Your task to perform on an android device: Open the web browser Image 0: 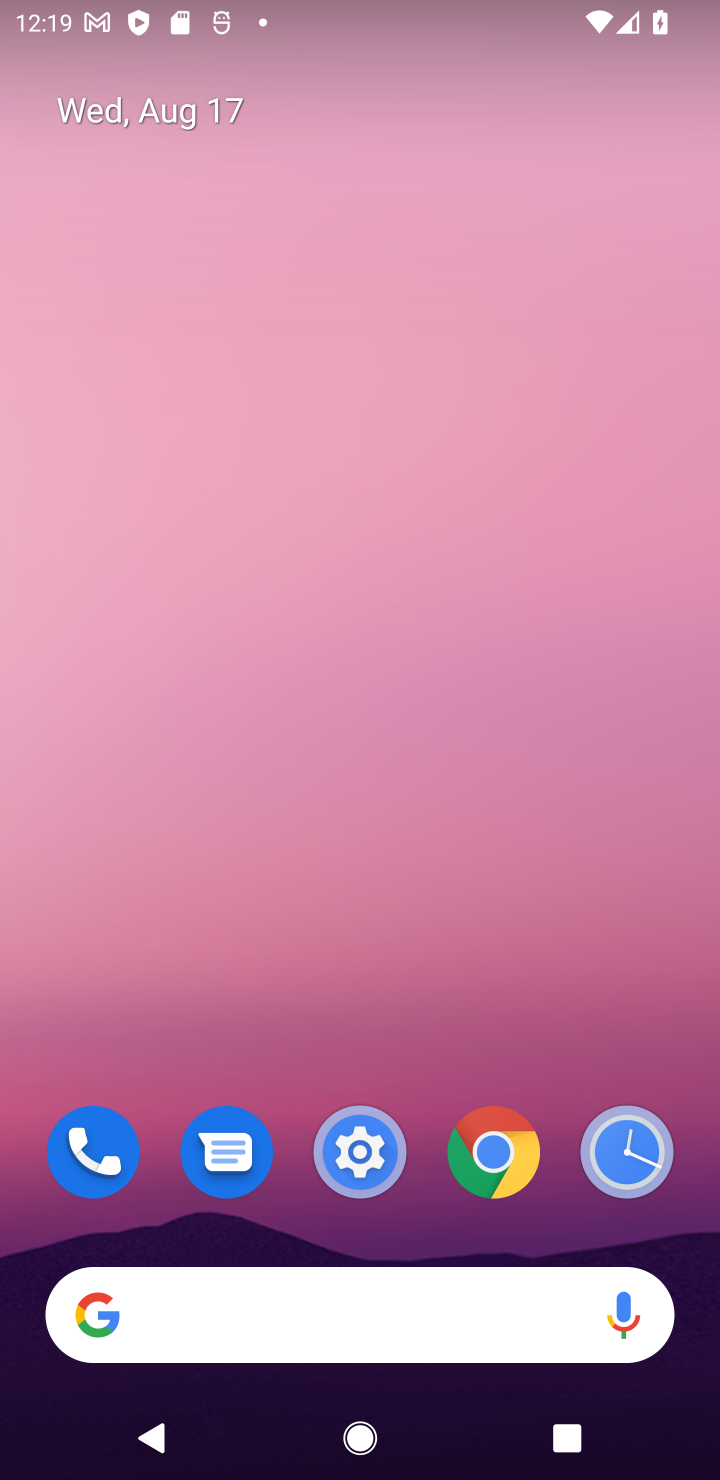
Step 0: drag from (583, 1182) to (9, 24)
Your task to perform on an android device: Open the web browser Image 1: 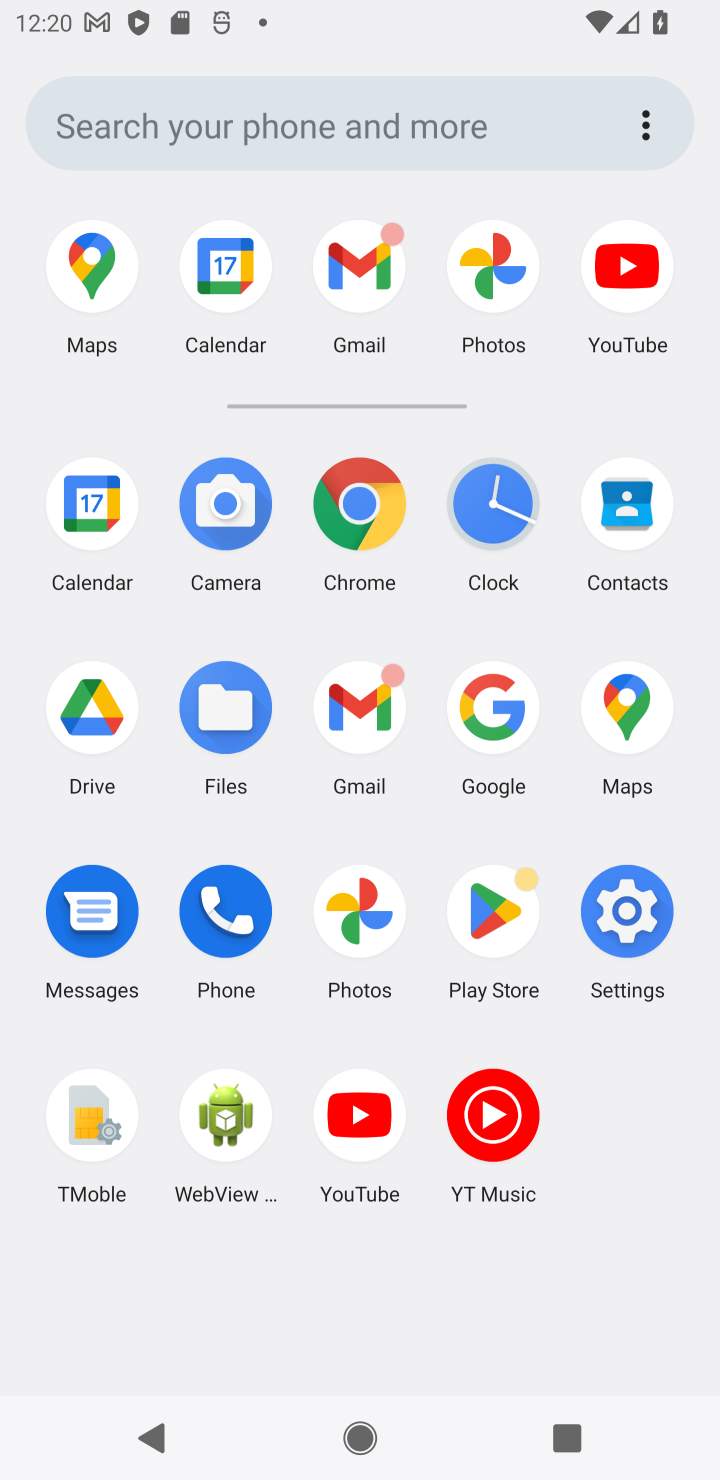
Step 1: click (505, 713)
Your task to perform on an android device: Open the web browser Image 2: 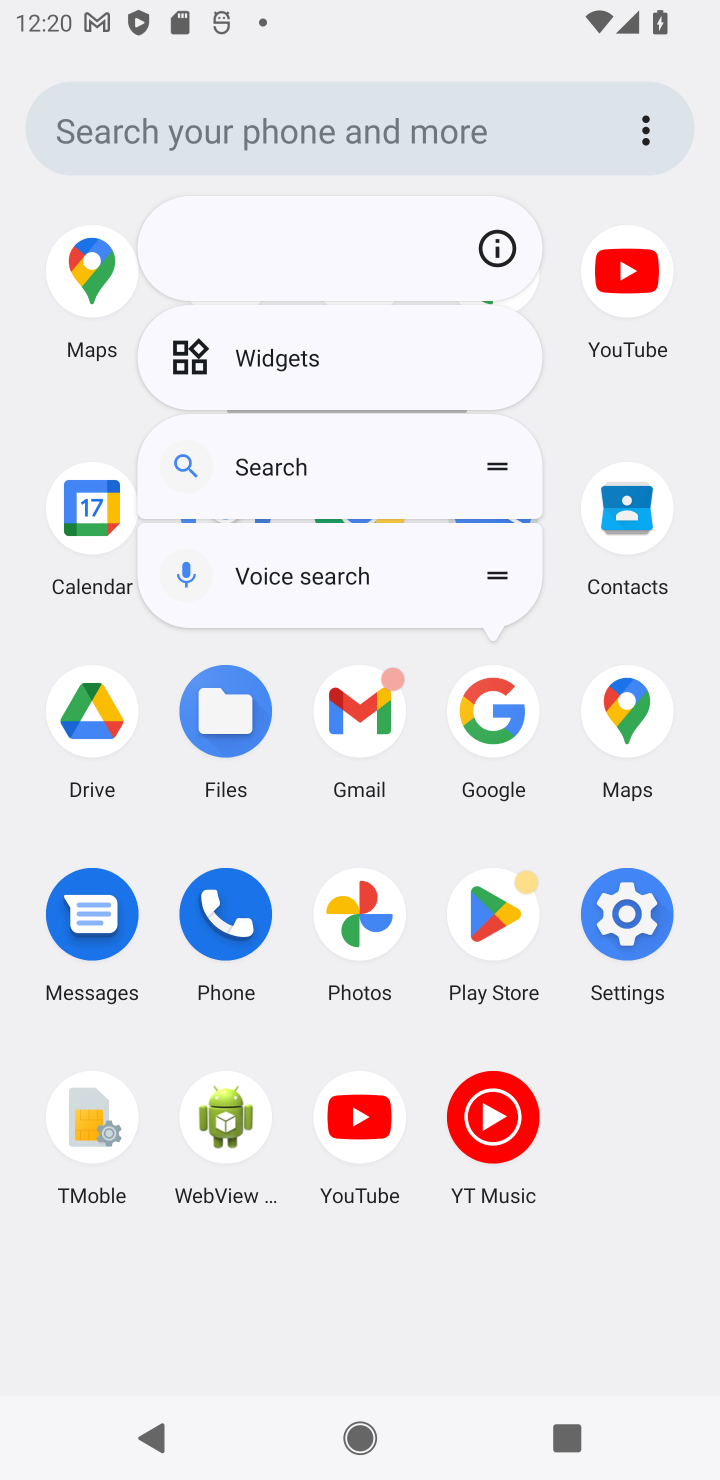
Step 2: click (505, 713)
Your task to perform on an android device: Open the web browser Image 3: 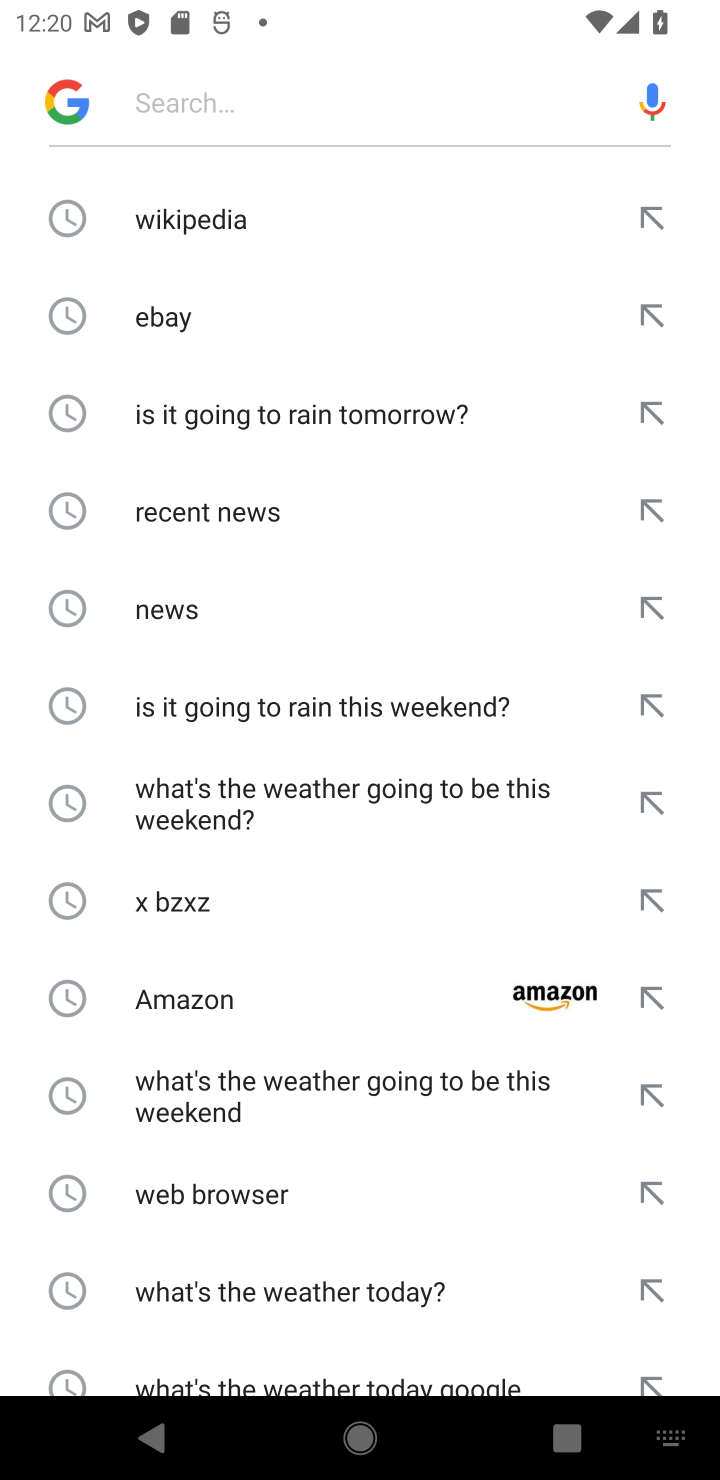
Step 3: click (237, 1214)
Your task to perform on an android device: Open the web browser Image 4: 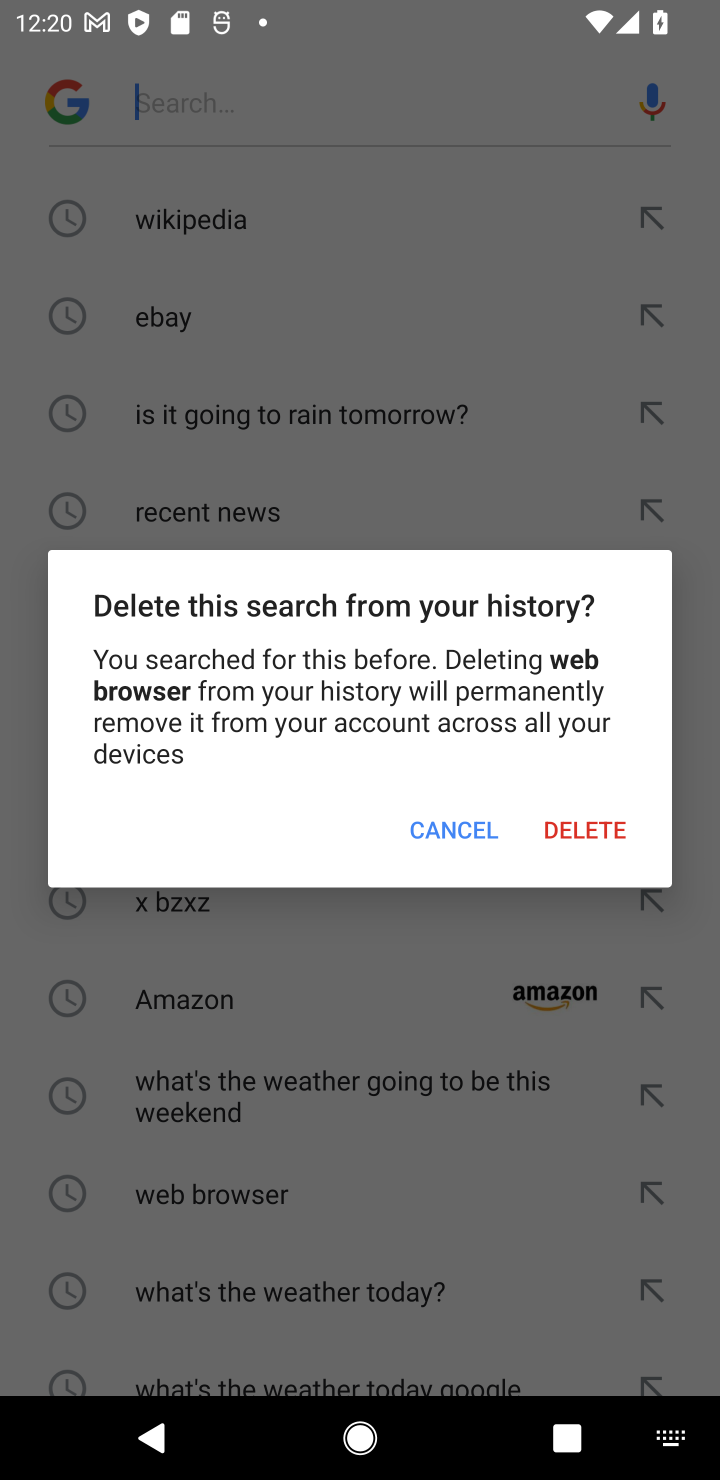
Step 4: click (436, 848)
Your task to perform on an android device: Open the web browser Image 5: 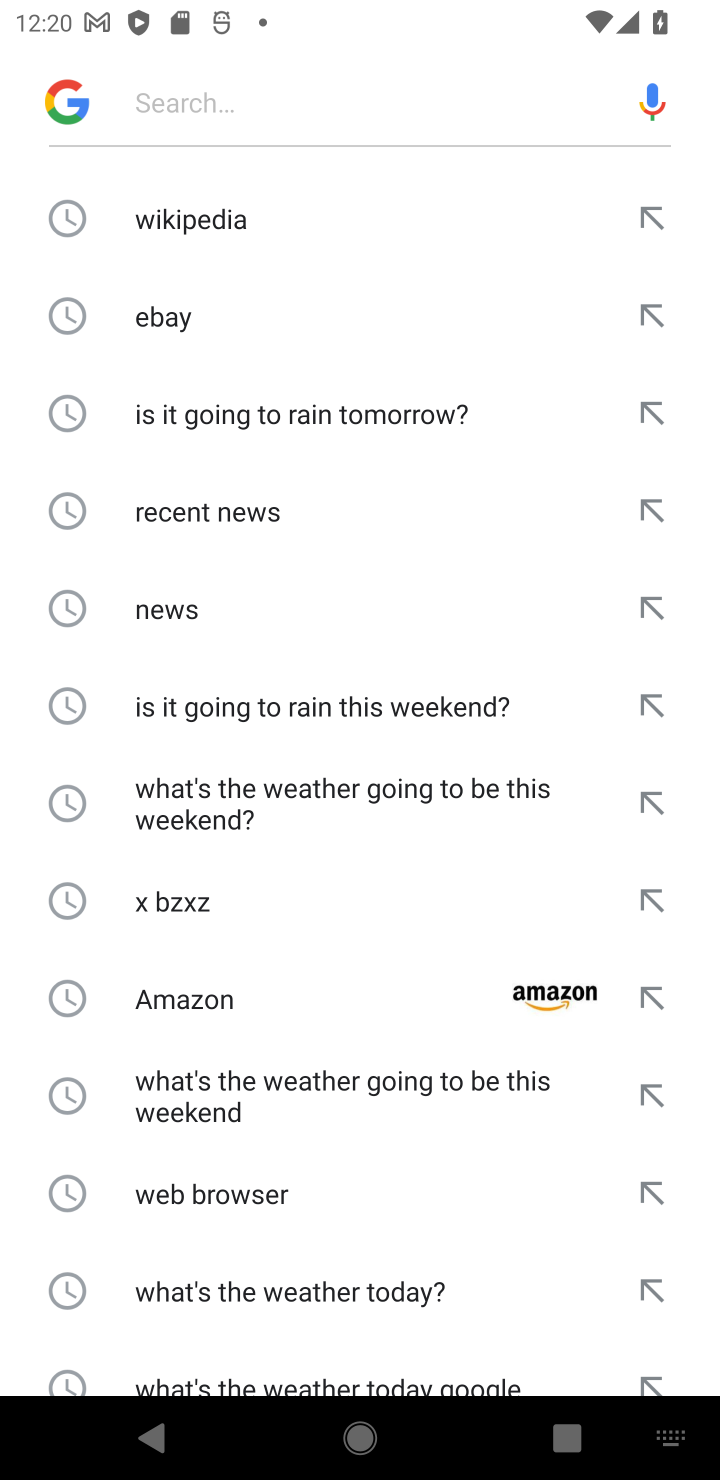
Step 5: click (164, 1189)
Your task to perform on an android device: Open the web browser Image 6: 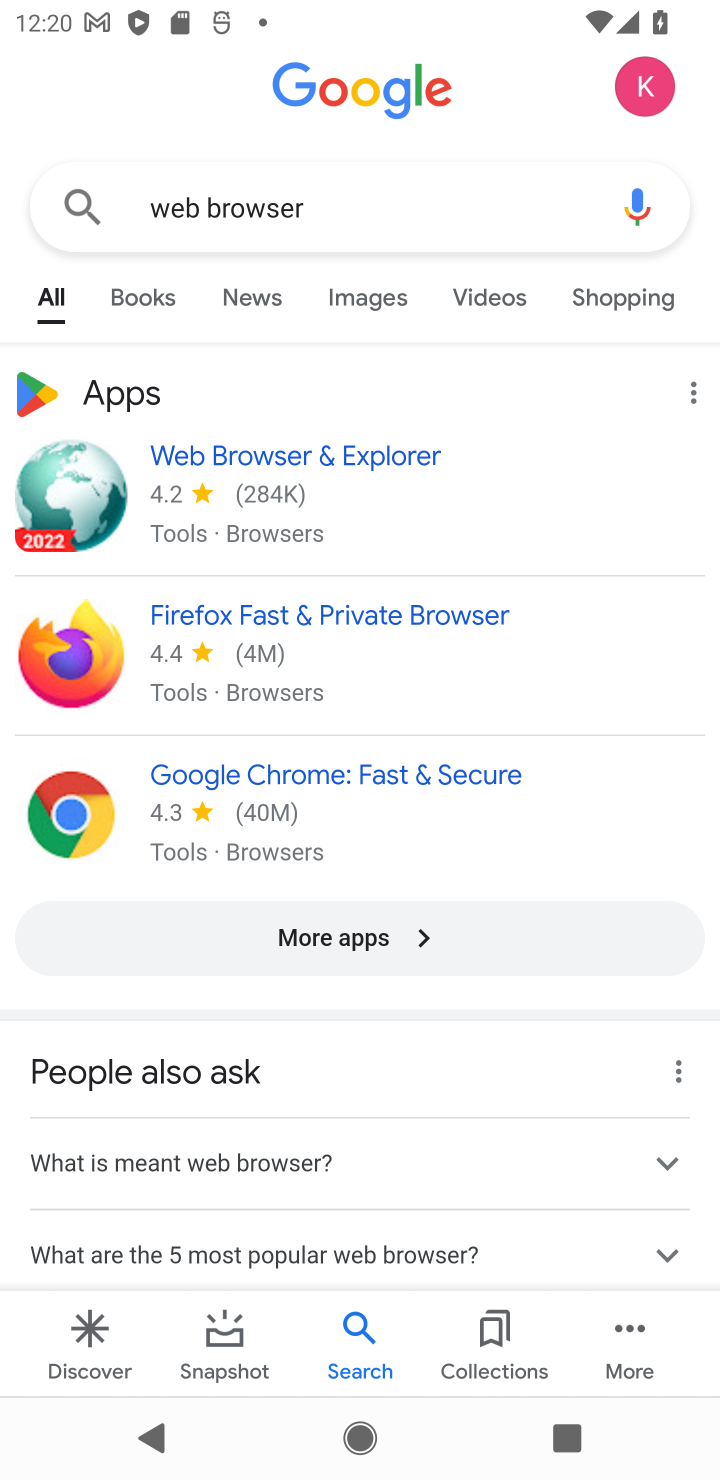
Step 6: task complete